Your task to perform on an android device: stop showing notifications on the lock screen Image 0: 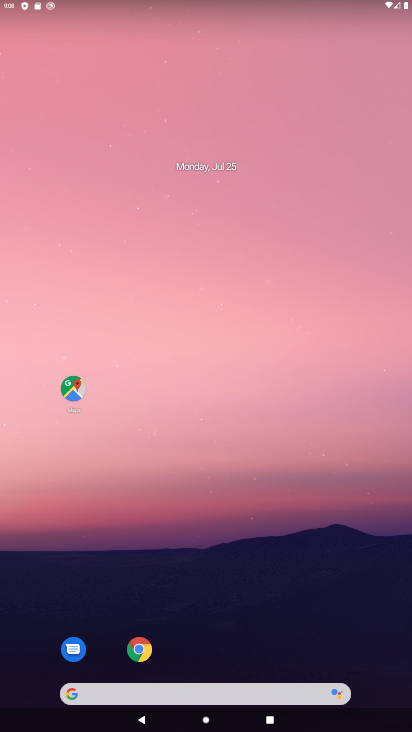
Step 0: drag from (254, 504) to (398, 309)
Your task to perform on an android device: stop showing notifications on the lock screen Image 1: 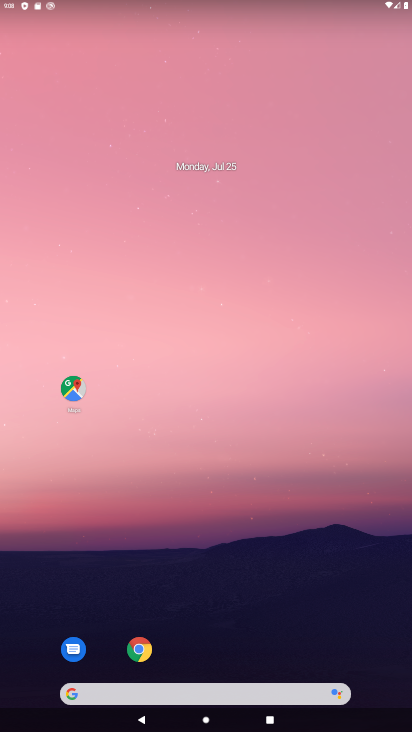
Step 1: drag from (250, 567) to (349, 3)
Your task to perform on an android device: stop showing notifications on the lock screen Image 2: 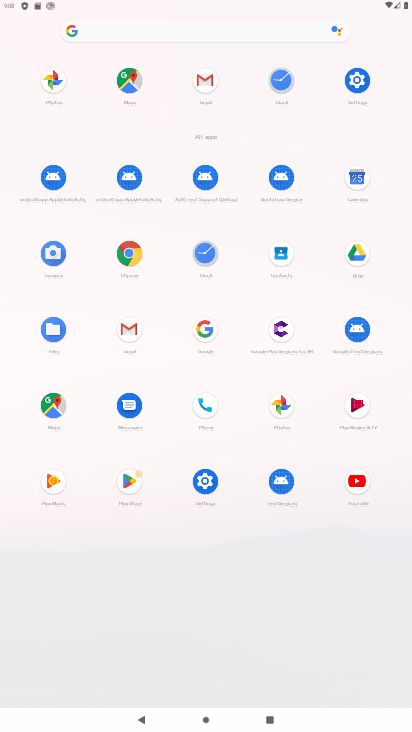
Step 2: click (346, 75)
Your task to perform on an android device: stop showing notifications on the lock screen Image 3: 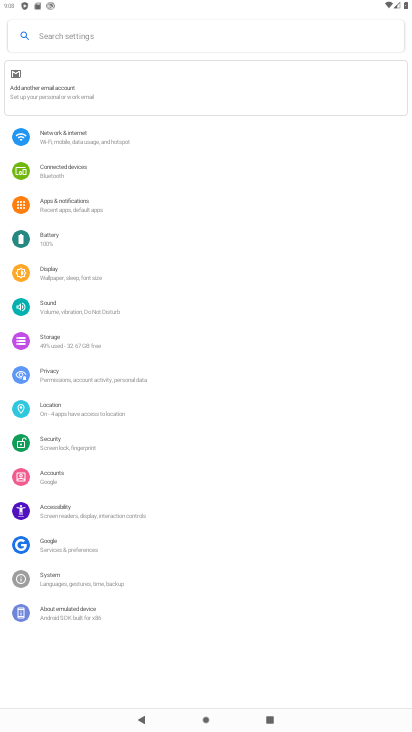
Step 3: click (80, 210)
Your task to perform on an android device: stop showing notifications on the lock screen Image 4: 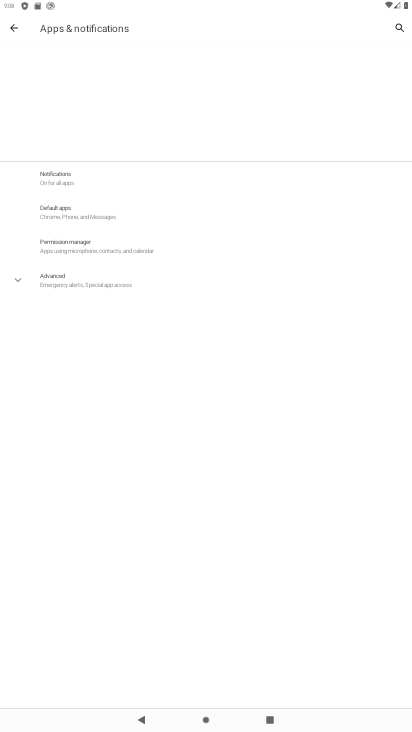
Step 4: click (61, 181)
Your task to perform on an android device: stop showing notifications on the lock screen Image 5: 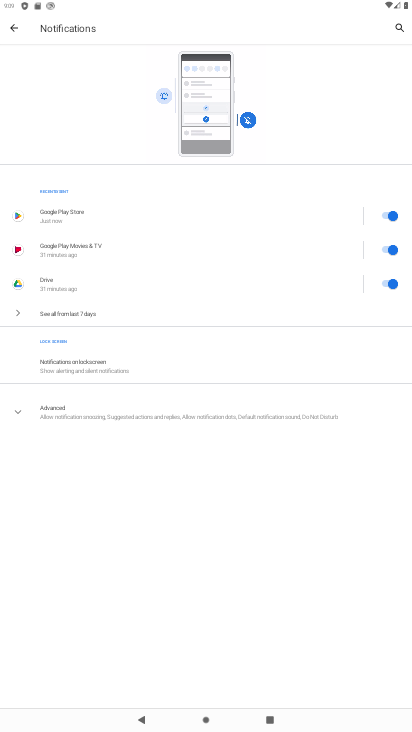
Step 5: click (65, 363)
Your task to perform on an android device: stop showing notifications on the lock screen Image 6: 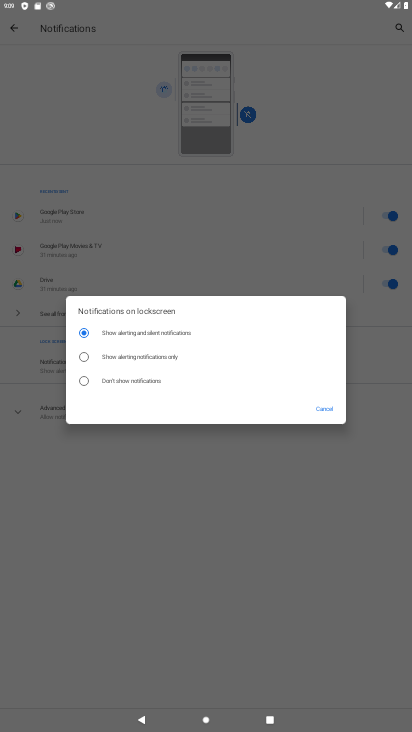
Step 6: click (124, 379)
Your task to perform on an android device: stop showing notifications on the lock screen Image 7: 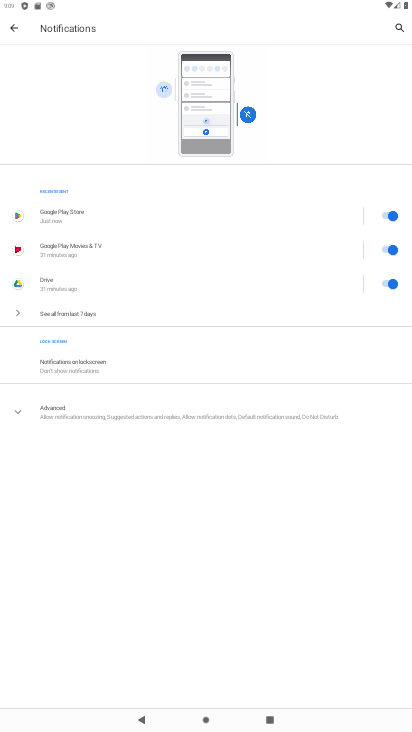
Step 7: task complete